Your task to perform on an android device: Turn off the flashlight Image 0: 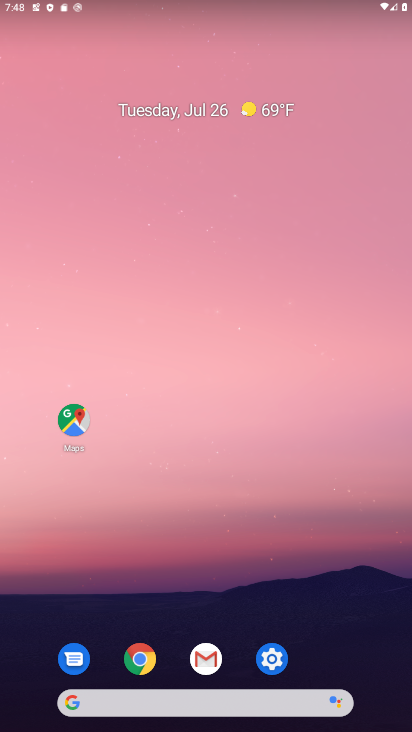
Step 0: click (270, 651)
Your task to perform on an android device: Turn off the flashlight Image 1: 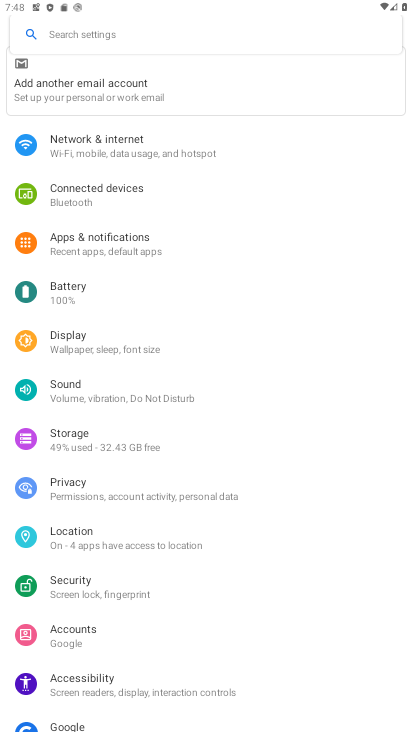
Step 1: click (63, 42)
Your task to perform on an android device: Turn off the flashlight Image 2: 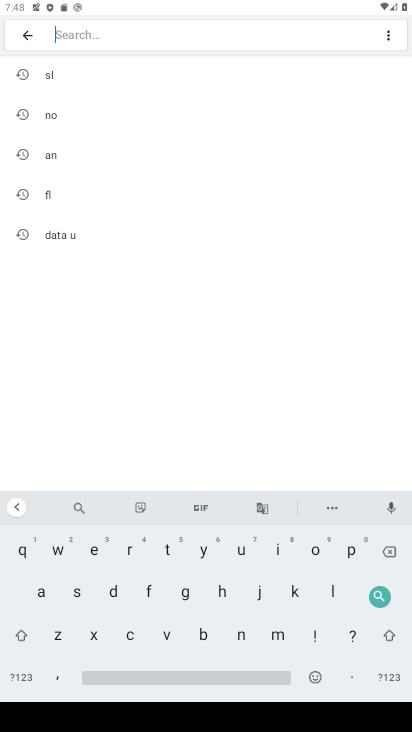
Step 2: click (145, 591)
Your task to perform on an android device: Turn off the flashlight Image 3: 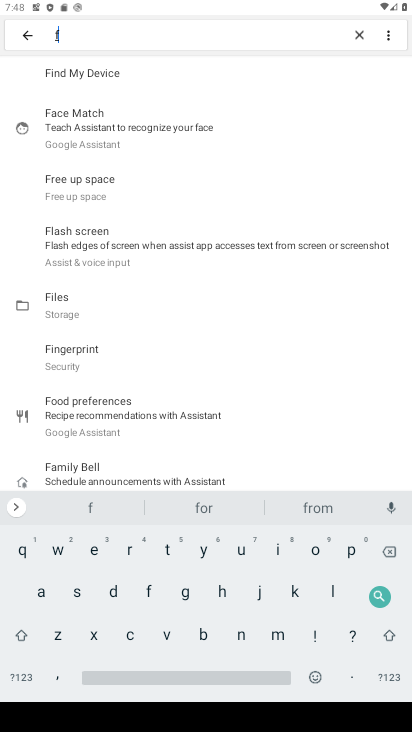
Step 3: click (332, 589)
Your task to perform on an android device: Turn off the flashlight Image 4: 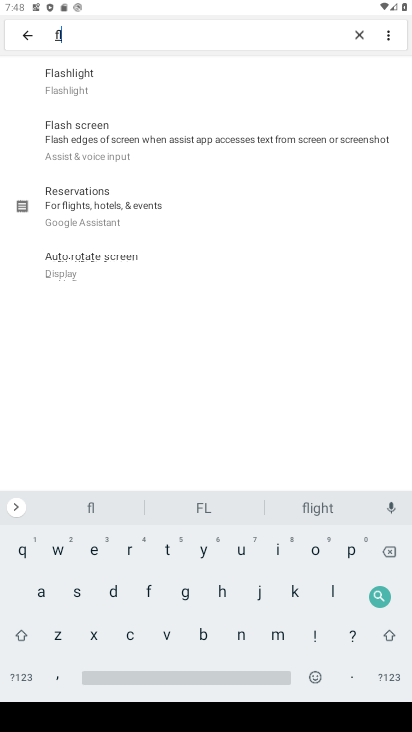
Step 4: click (67, 90)
Your task to perform on an android device: Turn off the flashlight Image 5: 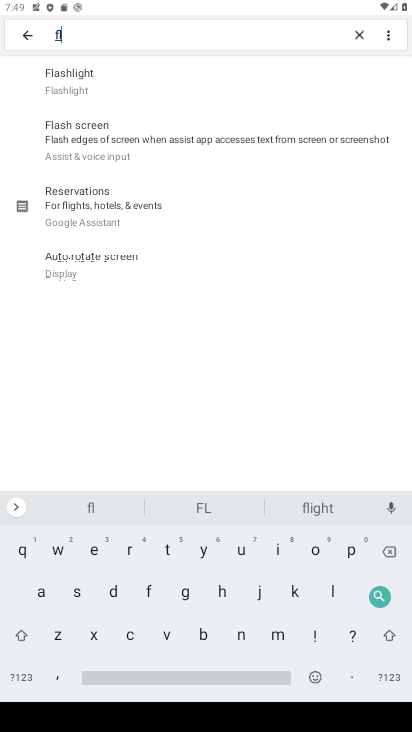
Step 5: task complete